Your task to perform on an android device: Open location settings Image 0: 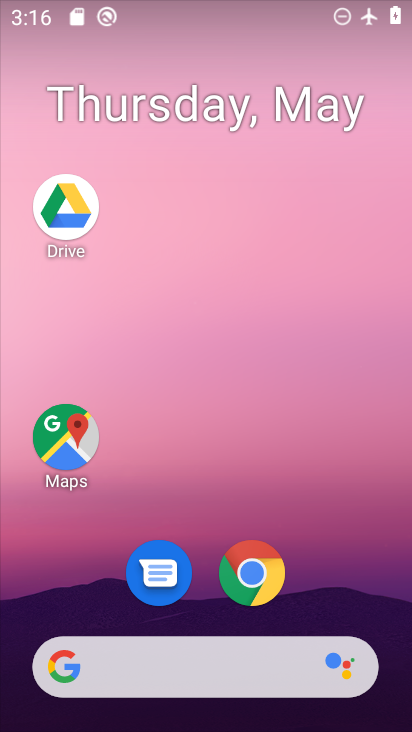
Step 0: drag from (325, 510) to (267, 58)
Your task to perform on an android device: Open location settings Image 1: 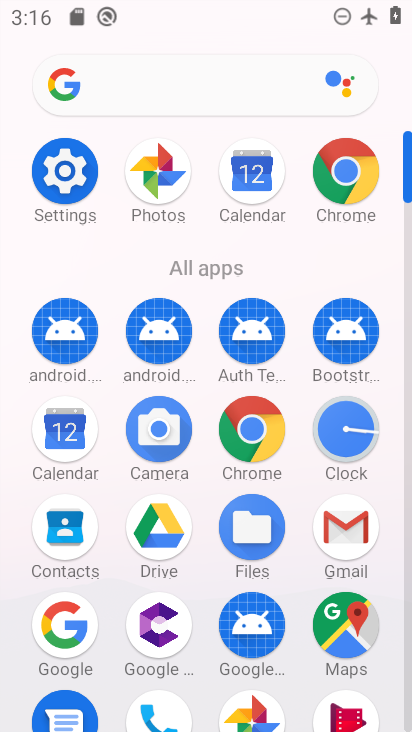
Step 1: click (50, 169)
Your task to perform on an android device: Open location settings Image 2: 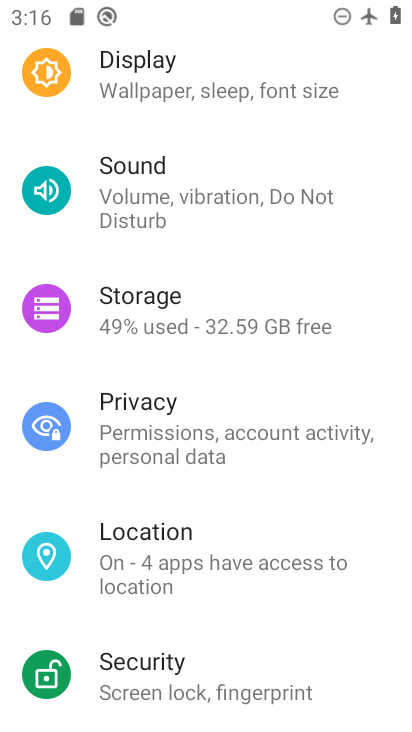
Step 2: click (148, 531)
Your task to perform on an android device: Open location settings Image 3: 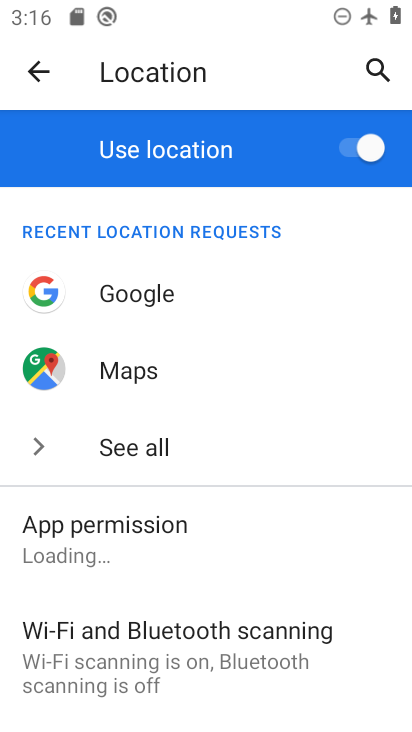
Step 3: task complete